Your task to perform on an android device: Open calendar and show me the fourth week of next month Image 0: 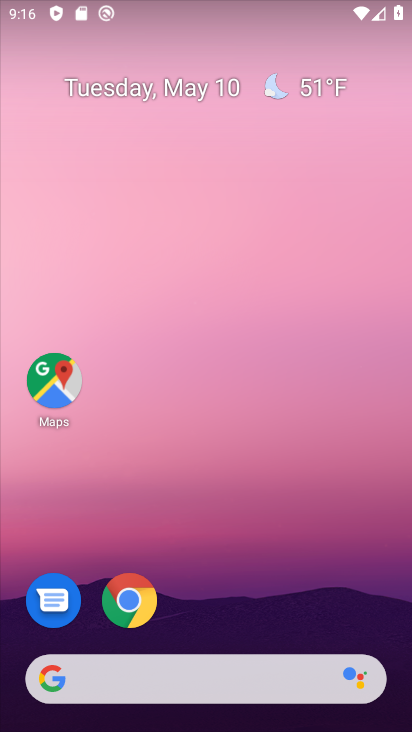
Step 0: click (171, 87)
Your task to perform on an android device: Open calendar and show me the fourth week of next month Image 1: 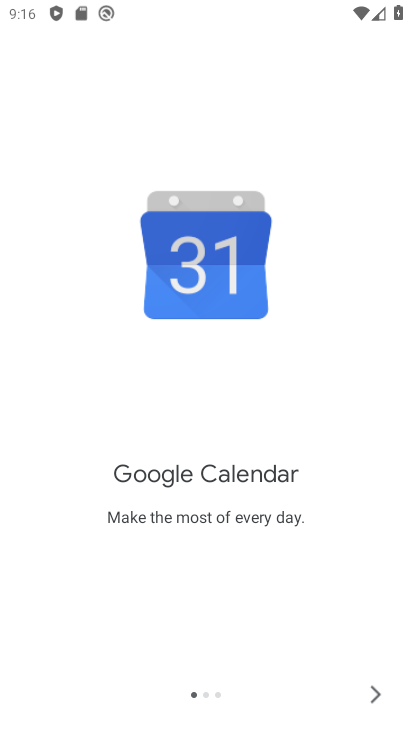
Step 1: click (386, 696)
Your task to perform on an android device: Open calendar and show me the fourth week of next month Image 2: 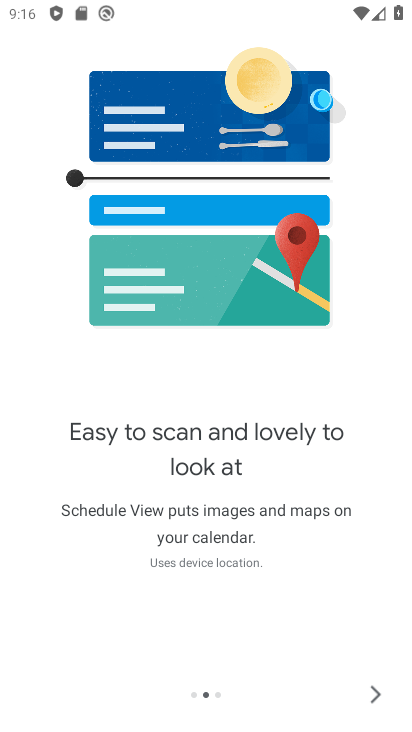
Step 2: click (374, 691)
Your task to perform on an android device: Open calendar and show me the fourth week of next month Image 3: 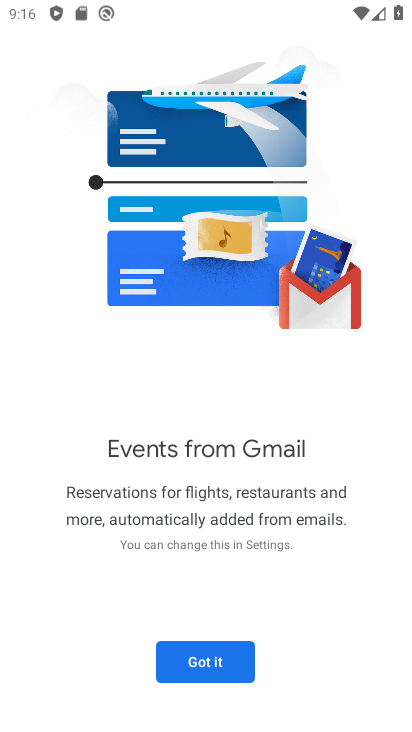
Step 3: click (235, 661)
Your task to perform on an android device: Open calendar and show me the fourth week of next month Image 4: 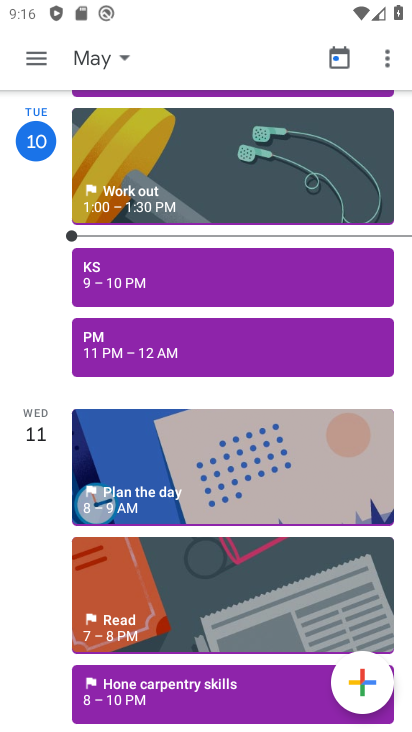
Step 4: click (33, 53)
Your task to perform on an android device: Open calendar and show me the fourth week of next month Image 5: 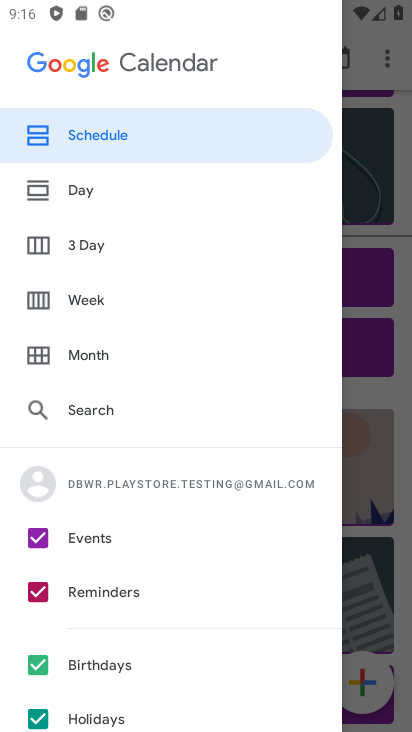
Step 5: click (104, 303)
Your task to perform on an android device: Open calendar and show me the fourth week of next month Image 6: 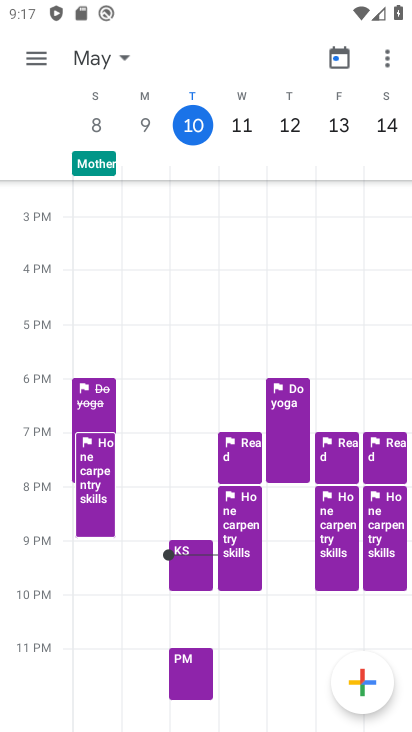
Step 6: click (113, 51)
Your task to perform on an android device: Open calendar and show me the fourth week of next month Image 7: 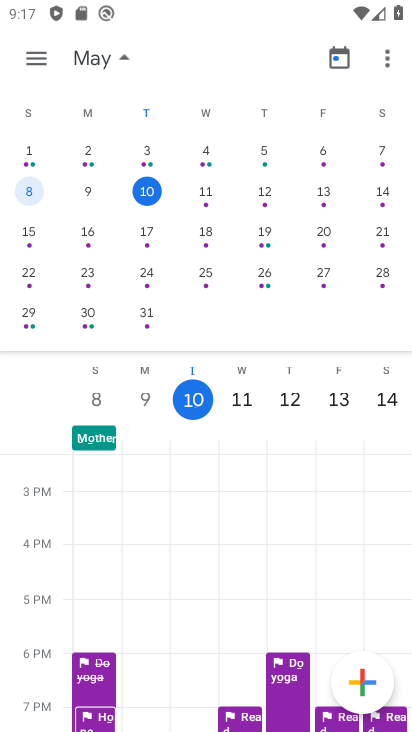
Step 7: drag from (317, 269) to (80, 251)
Your task to perform on an android device: Open calendar and show me the fourth week of next month Image 8: 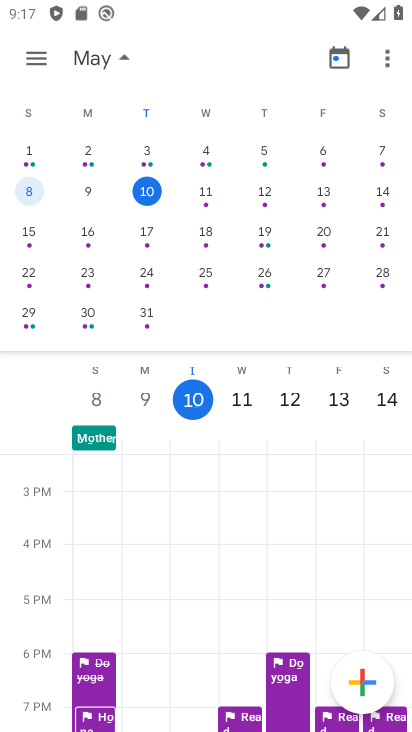
Step 8: click (206, 273)
Your task to perform on an android device: Open calendar and show me the fourth week of next month Image 9: 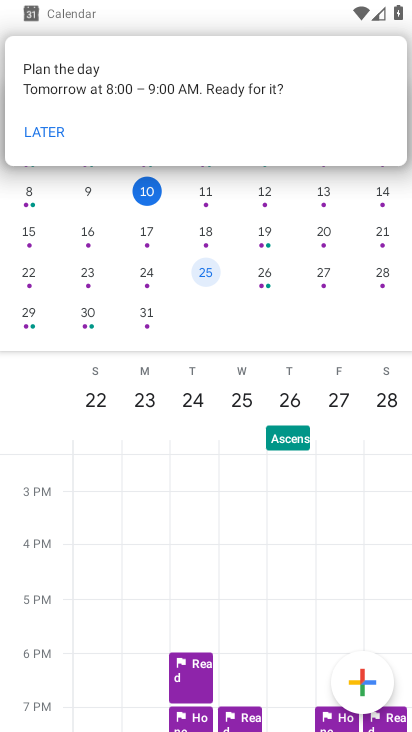
Step 9: task complete